Your task to perform on an android device: turn off improve location accuracy Image 0: 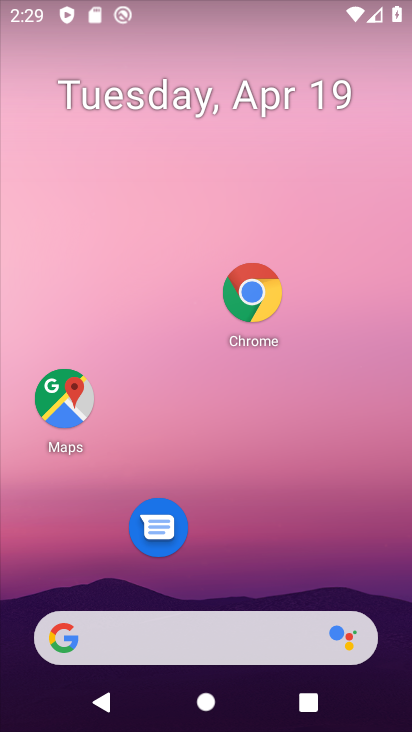
Step 0: drag from (251, 610) to (205, 212)
Your task to perform on an android device: turn off improve location accuracy Image 1: 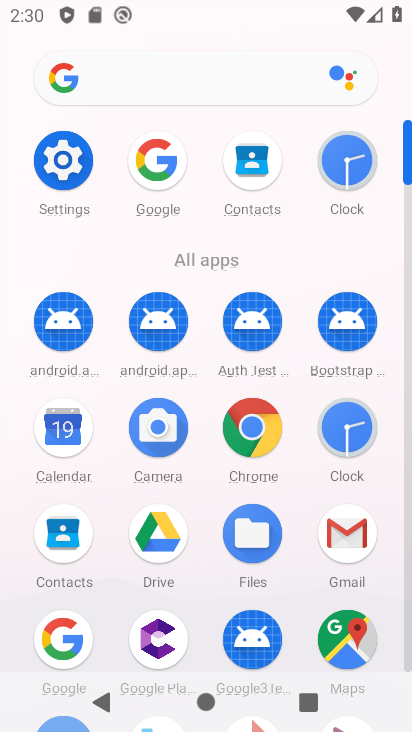
Step 1: click (78, 158)
Your task to perform on an android device: turn off improve location accuracy Image 2: 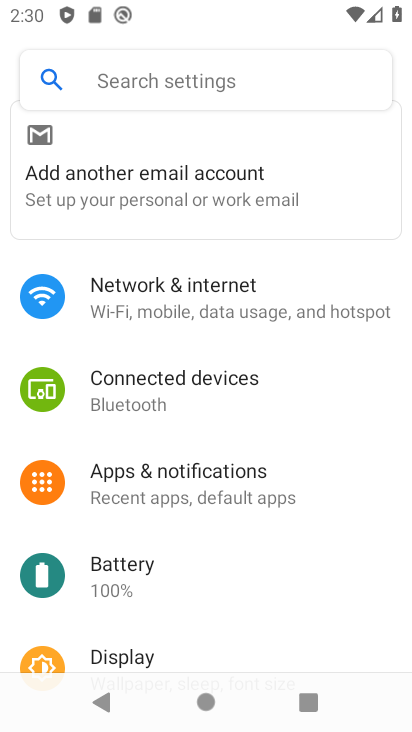
Step 2: drag from (190, 628) to (173, 311)
Your task to perform on an android device: turn off improve location accuracy Image 3: 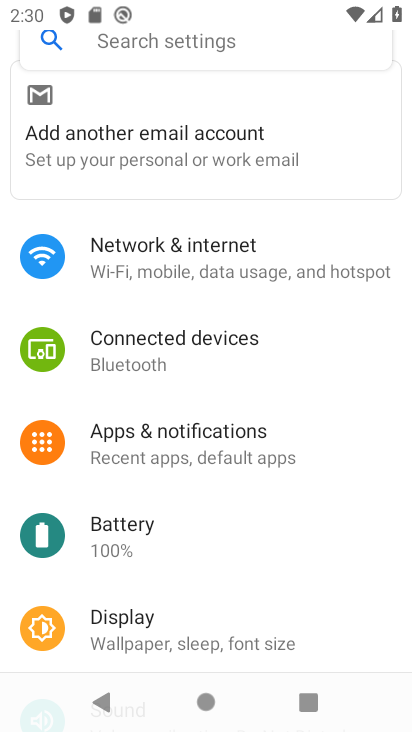
Step 3: drag from (238, 656) to (230, 358)
Your task to perform on an android device: turn off improve location accuracy Image 4: 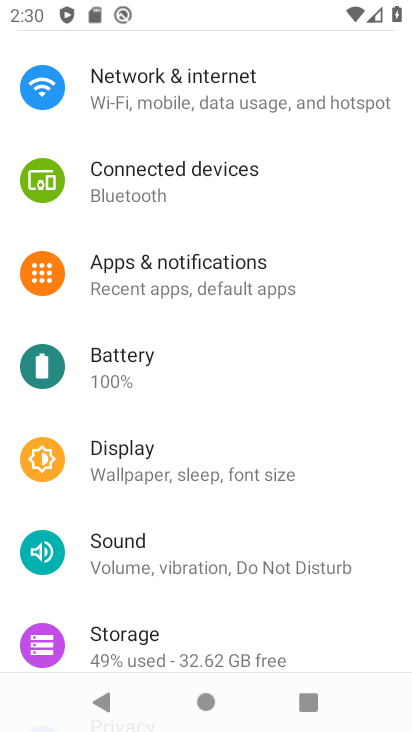
Step 4: drag from (152, 618) to (216, 291)
Your task to perform on an android device: turn off improve location accuracy Image 5: 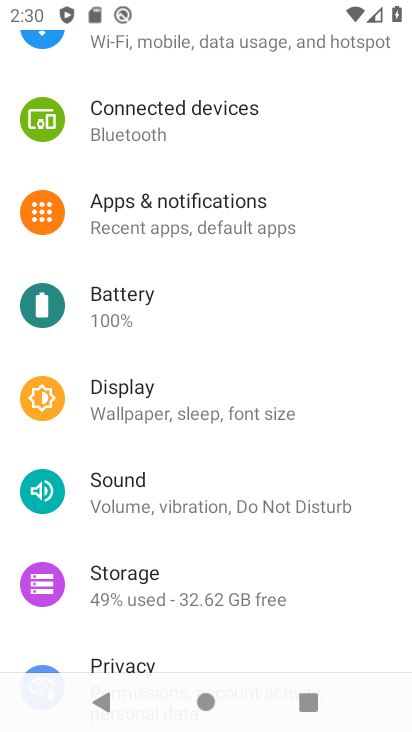
Step 5: drag from (207, 643) to (223, 299)
Your task to perform on an android device: turn off improve location accuracy Image 6: 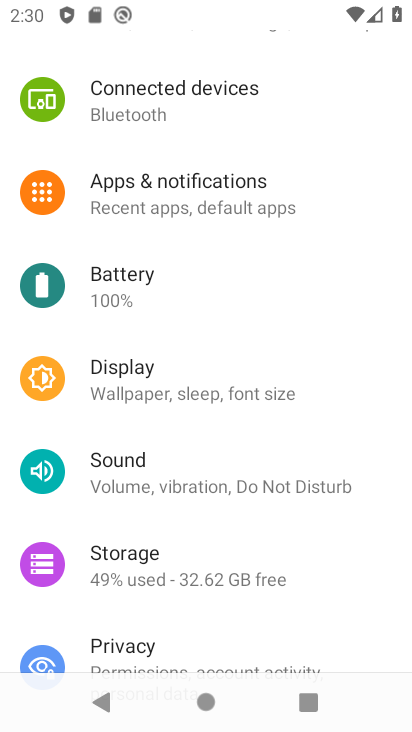
Step 6: drag from (193, 639) to (193, 234)
Your task to perform on an android device: turn off improve location accuracy Image 7: 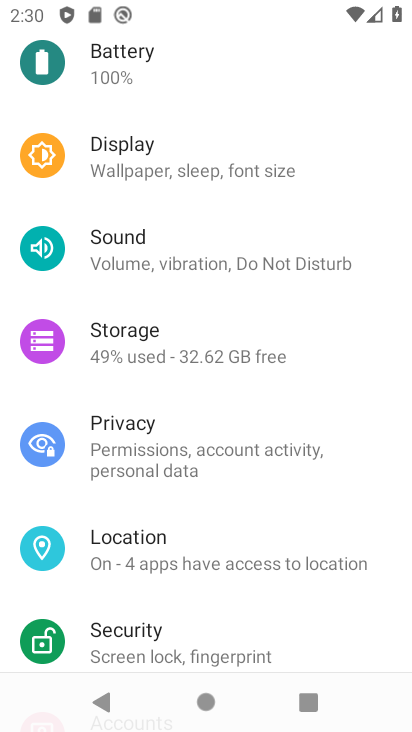
Step 7: click (122, 557)
Your task to perform on an android device: turn off improve location accuracy Image 8: 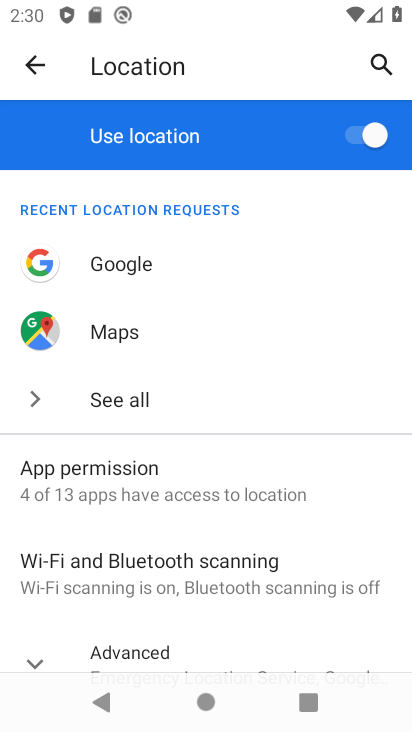
Step 8: drag from (157, 628) to (205, 330)
Your task to perform on an android device: turn off improve location accuracy Image 9: 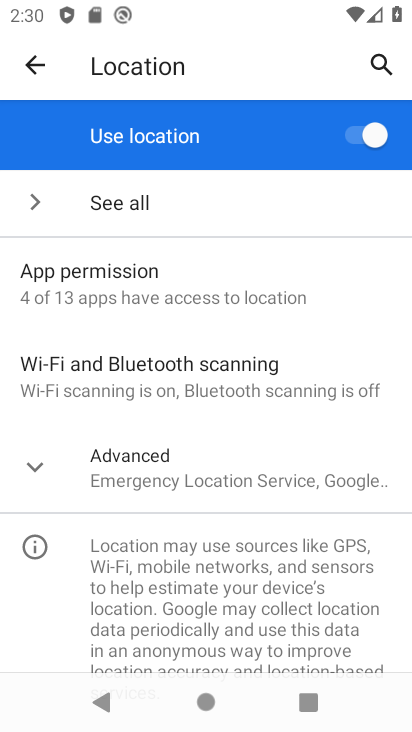
Step 9: click (151, 471)
Your task to perform on an android device: turn off improve location accuracy Image 10: 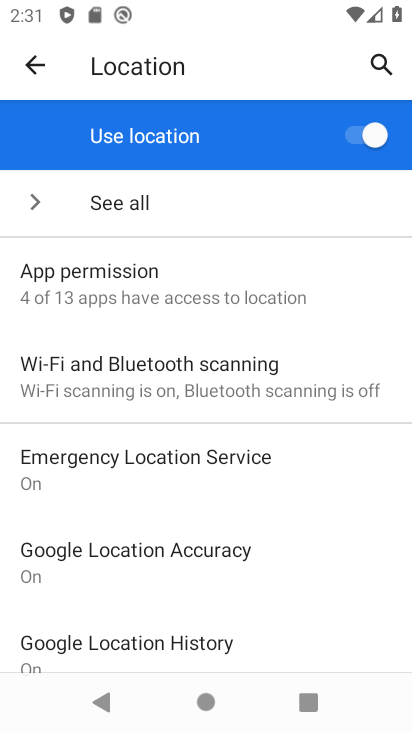
Step 10: click (134, 545)
Your task to perform on an android device: turn off improve location accuracy Image 11: 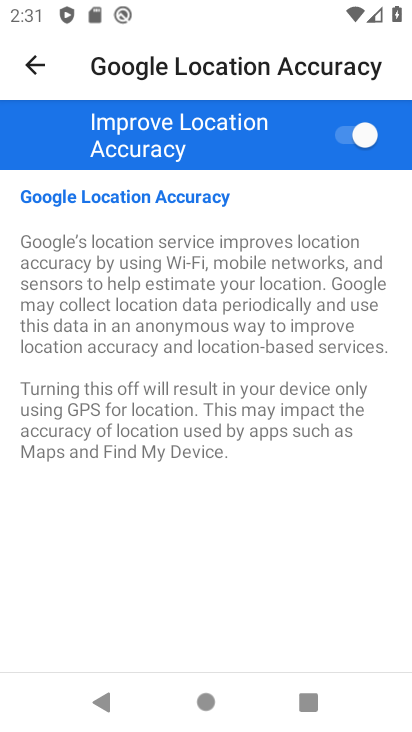
Step 11: click (339, 134)
Your task to perform on an android device: turn off improve location accuracy Image 12: 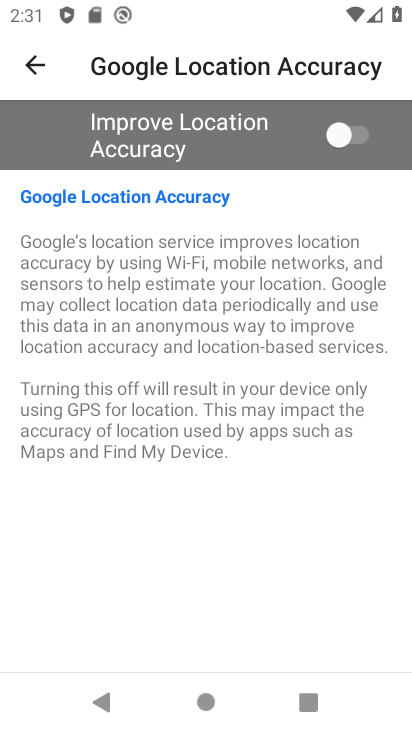
Step 12: task complete